Your task to perform on an android device: Go to display settings Image 0: 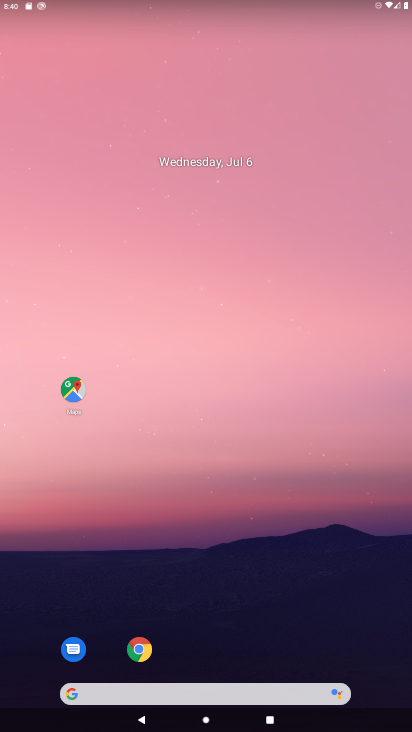
Step 0: drag from (316, 698) to (287, 329)
Your task to perform on an android device: Go to display settings Image 1: 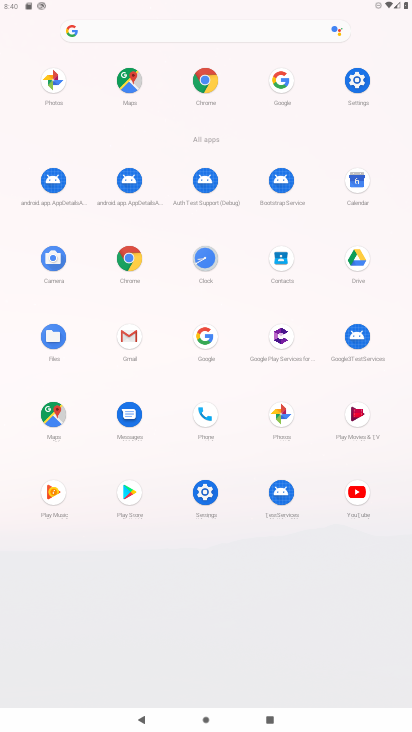
Step 1: click (357, 76)
Your task to perform on an android device: Go to display settings Image 2: 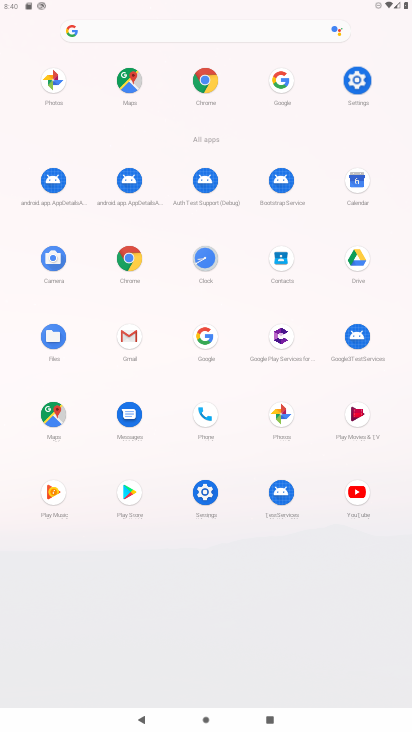
Step 2: click (361, 82)
Your task to perform on an android device: Go to display settings Image 3: 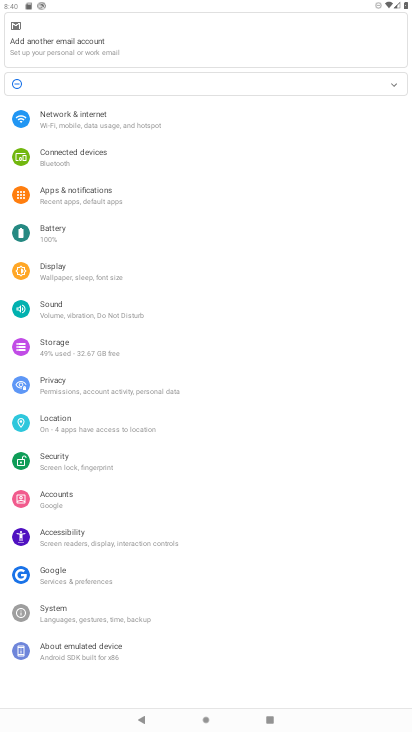
Step 3: click (55, 277)
Your task to perform on an android device: Go to display settings Image 4: 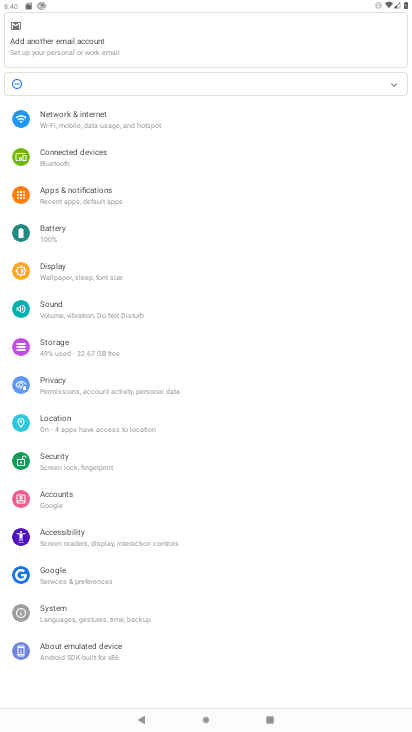
Step 4: click (55, 277)
Your task to perform on an android device: Go to display settings Image 5: 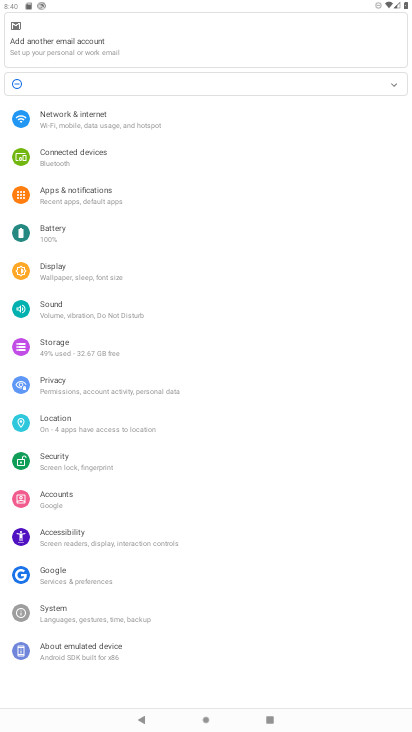
Step 5: click (56, 277)
Your task to perform on an android device: Go to display settings Image 6: 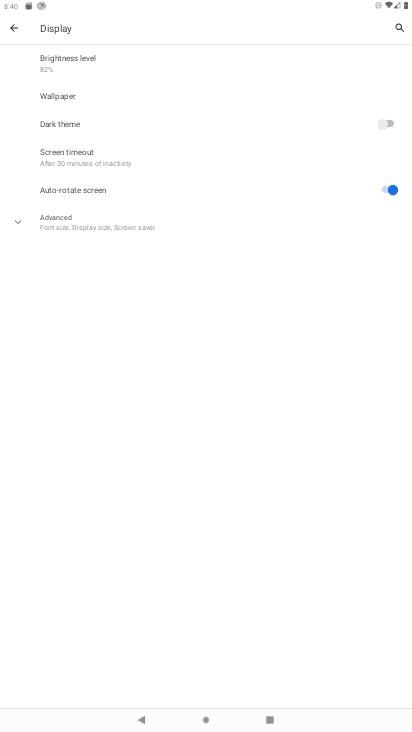
Step 6: task complete